Your task to perform on an android device: Go to Google maps Image 0: 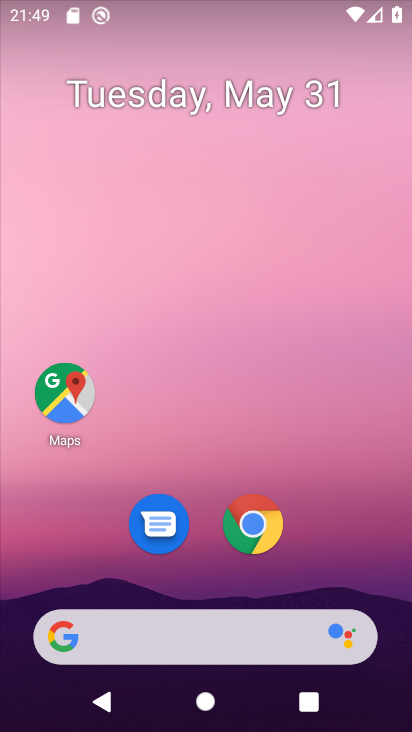
Step 0: click (61, 395)
Your task to perform on an android device: Go to Google maps Image 1: 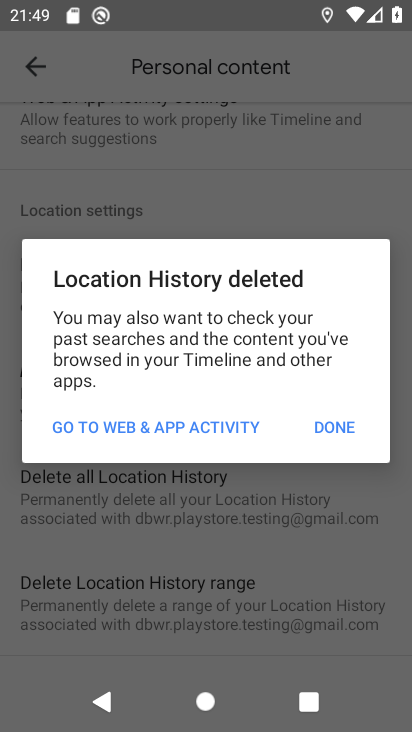
Step 1: click (335, 423)
Your task to perform on an android device: Go to Google maps Image 2: 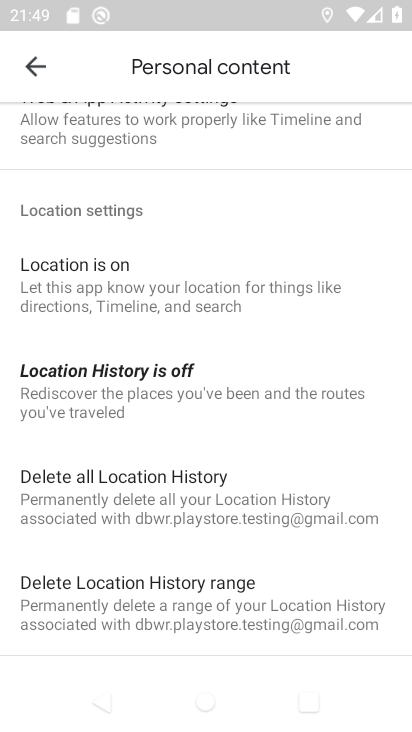
Step 2: click (35, 65)
Your task to perform on an android device: Go to Google maps Image 3: 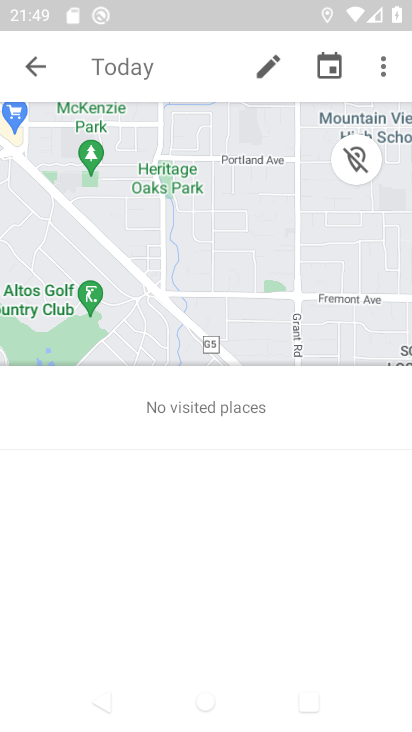
Step 3: click (35, 65)
Your task to perform on an android device: Go to Google maps Image 4: 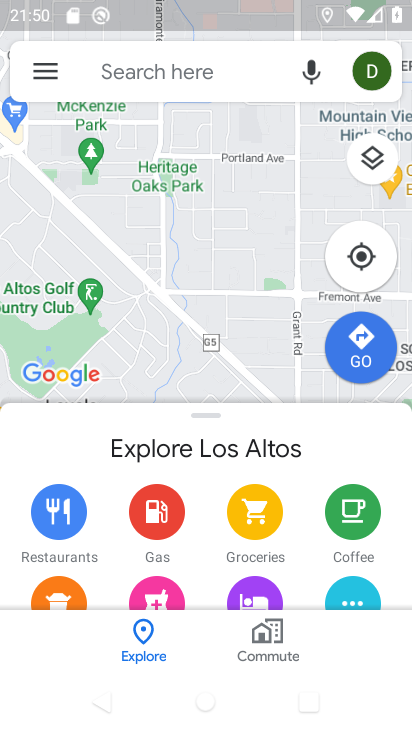
Step 4: task complete